Your task to perform on an android device: Open calendar and show me the second week of next month Image 0: 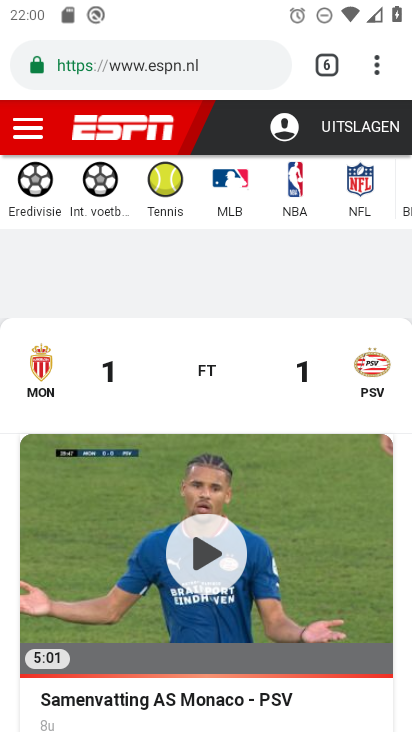
Step 0: press home button
Your task to perform on an android device: Open calendar and show me the second week of next month Image 1: 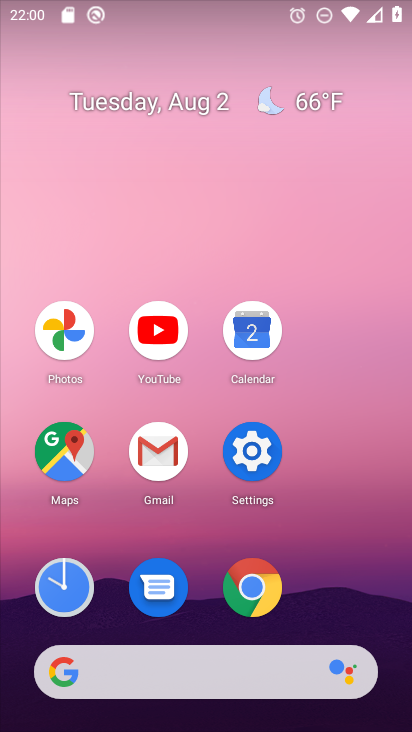
Step 1: click (256, 327)
Your task to perform on an android device: Open calendar and show me the second week of next month Image 2: 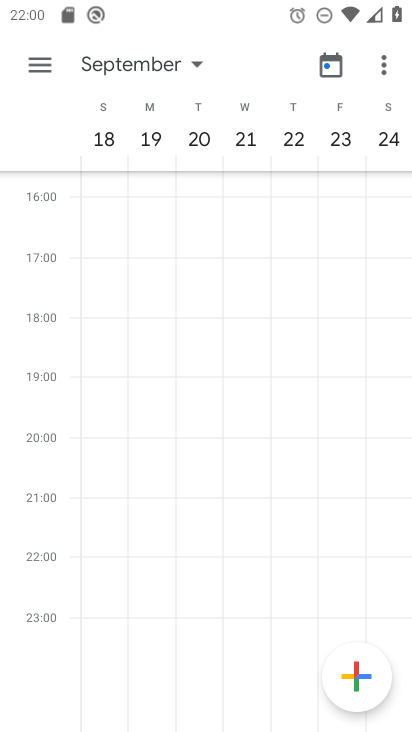
Step 2: click (193, 68)
Your task to perform on an android device: Open calendar and show me the second week of next month Image 3: 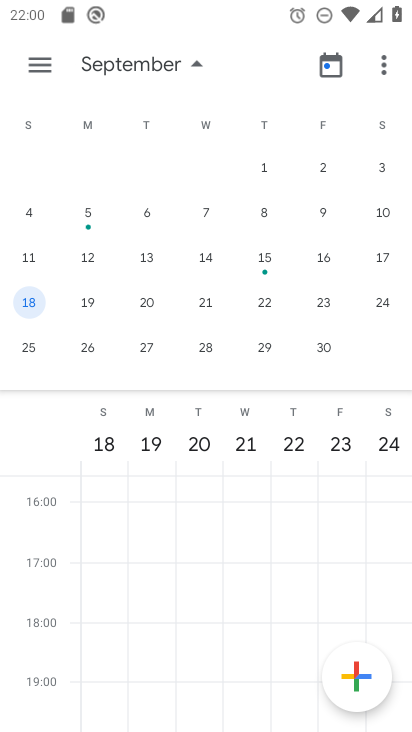
Step 3: click (203, 204)
Your task to perform on an android device: Open calendar and show me the second week of next month Image 4: 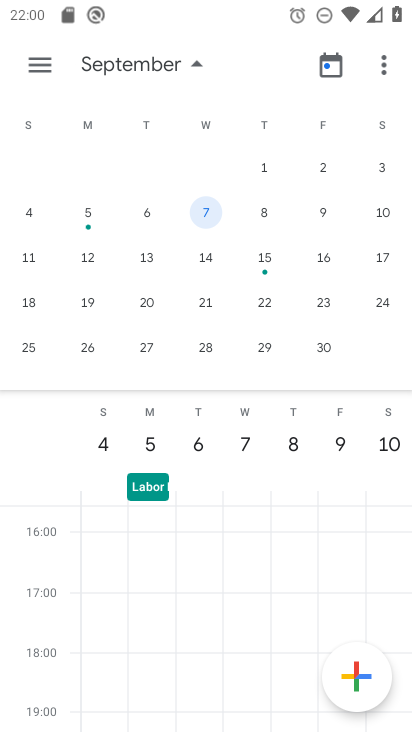
Step 4: task complete